Your task to perform on an android device: Where can I buy a nice beach hat? Image 0: 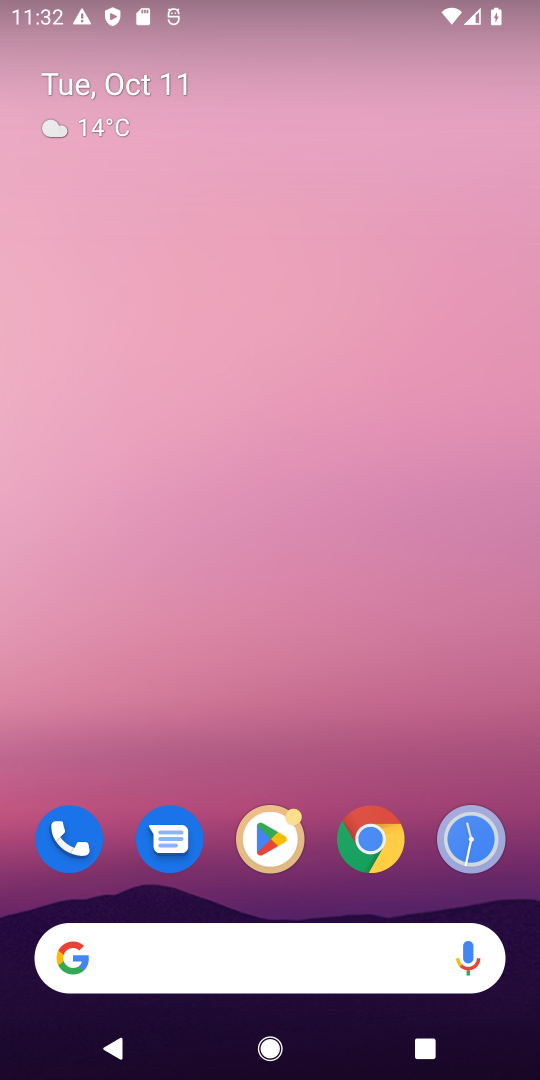
Step 0: click (360, 843)
Your task to perform on an android device: Where can I buy a nice beach hat? Image 1: 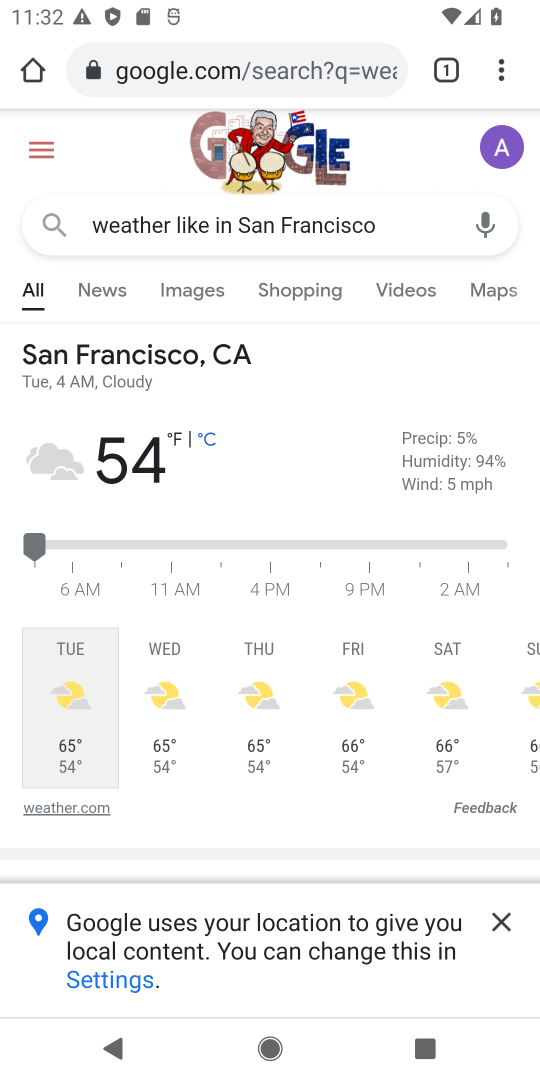
Step 1: click (204, 80)
Your task to perform on an android device: Where can I buy a nice beach hat? Image 2: 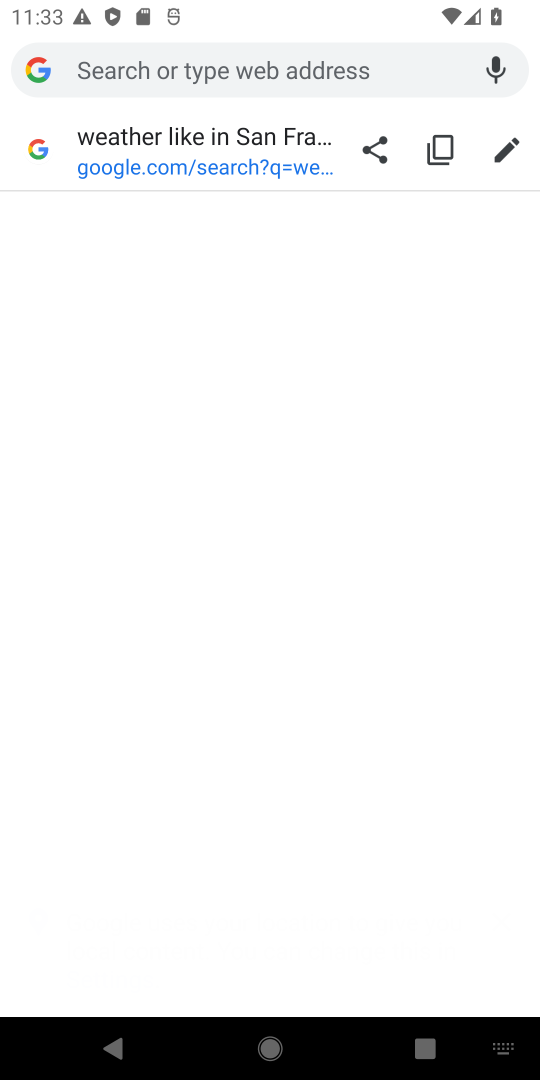
Step 2: type "Where can I buy a nice beach hat?"
Your task to perform on an android device: Where can I buy a nice beach hat? Image 3: 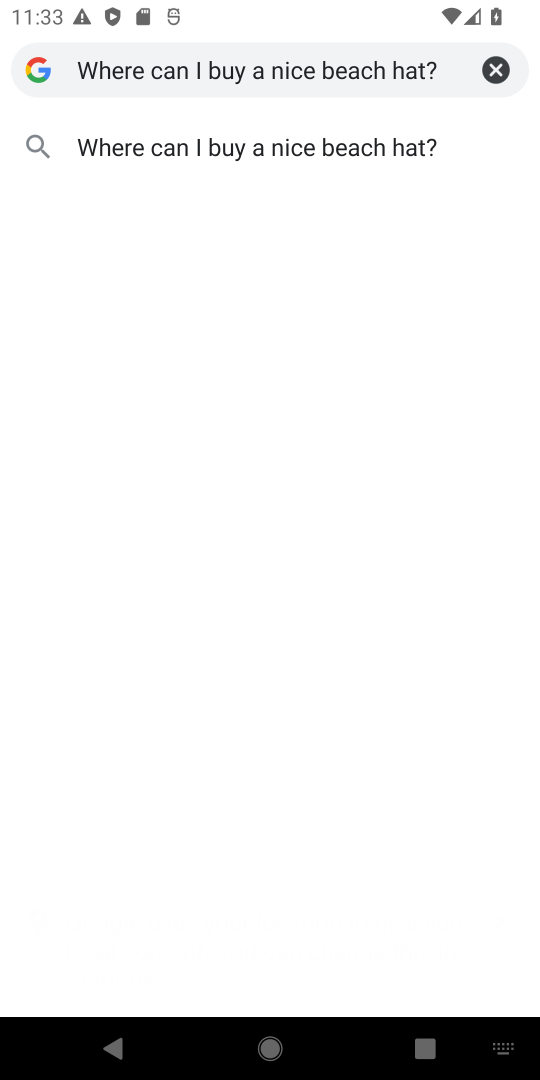
Step 3: press enter
Your task to perform on an android device: Where can I buy a nice beach hat? Image 4: 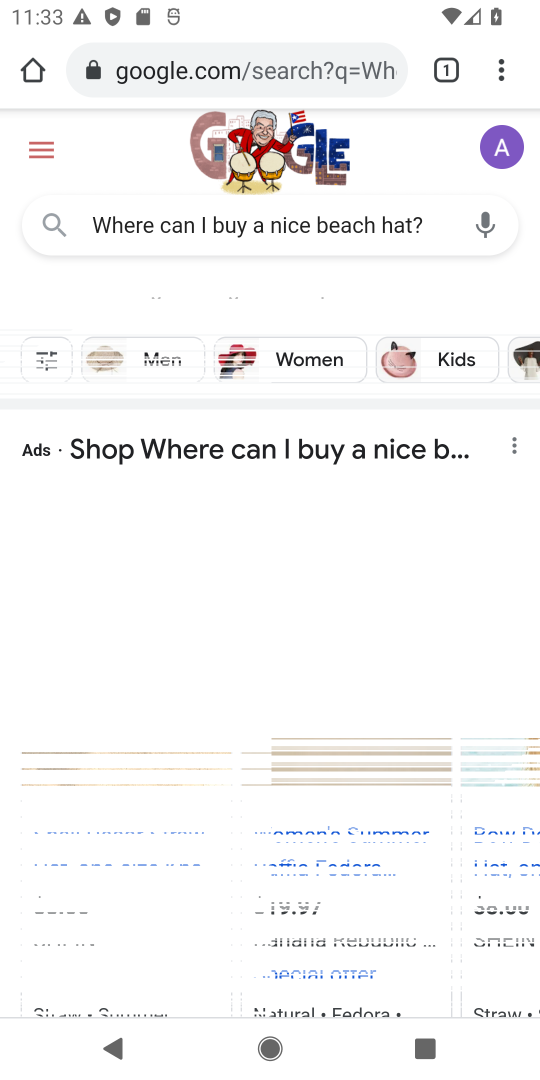
Step 4: drag from (311, 786) to (210, 442)
Your task to perform on an android device: Where can I buy a nice beach hat? Image 5: 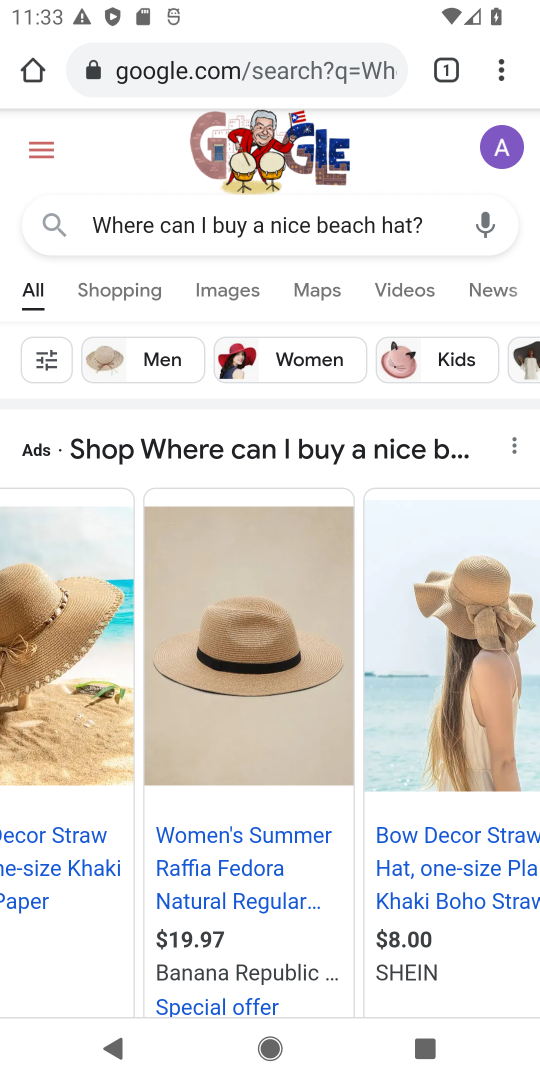
Step 5: drag from (360, 823) to (296, 377)
Your task to perform on an android device: Where can I buy a nice beach hat? Image 6: 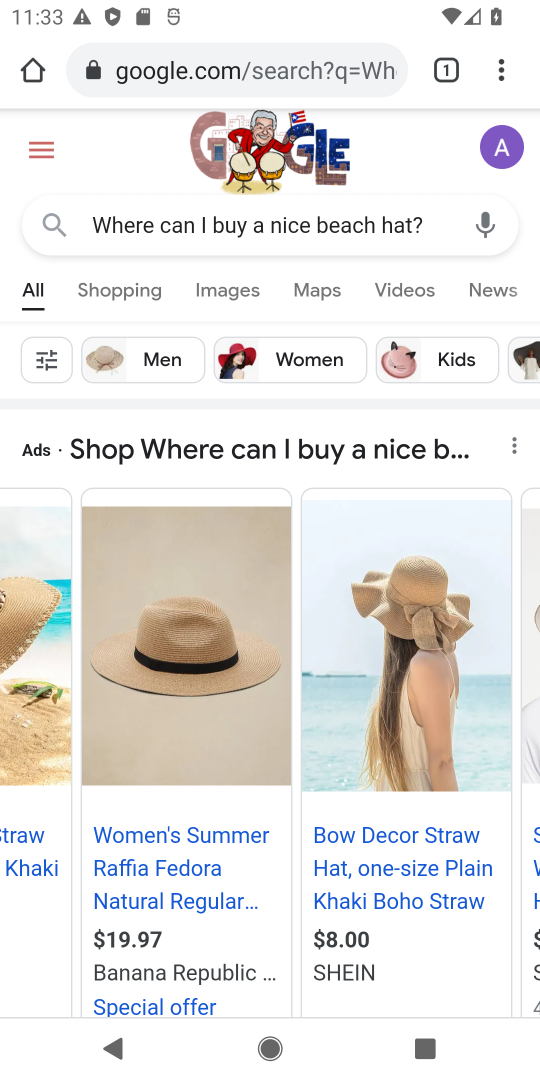
Step 6: click (52, 799)
Your task to perform on an android device: Where can I buy a nice beach hat? Image 7: 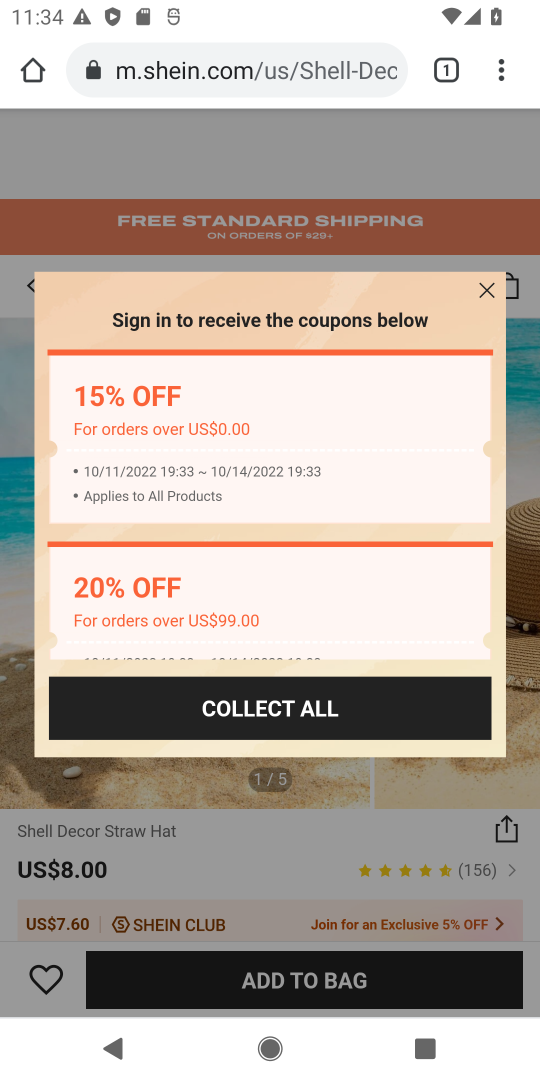
Step 7: task complete